Your task to perform on an android device: Open location settings Image 0: 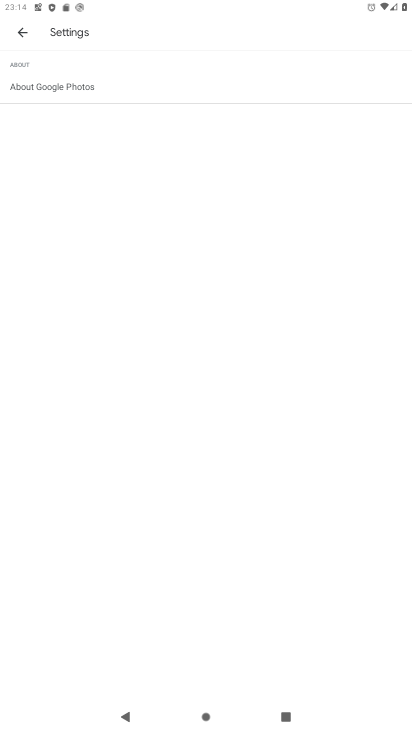
Step 0: press home button
Your task to perform on an android device: Open location settings Image 1: 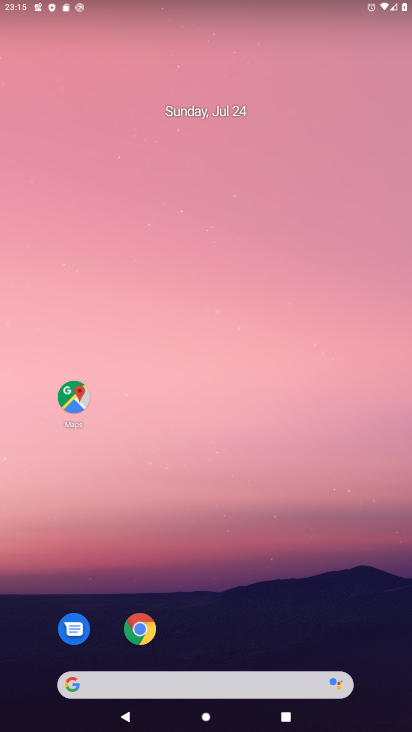
Step 1: drag from (200, 647) to (306, 87)
Your task to perform on an android device: Open location settings Image 2: 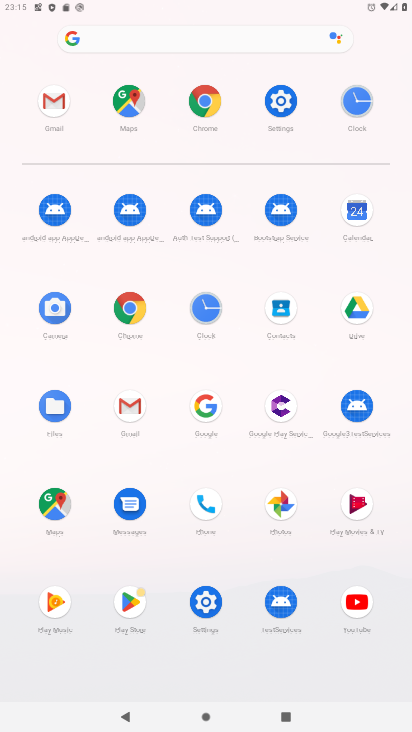
Step 2: click (201, 596)
Your task to perform on an android device: Open location settings Image 3: 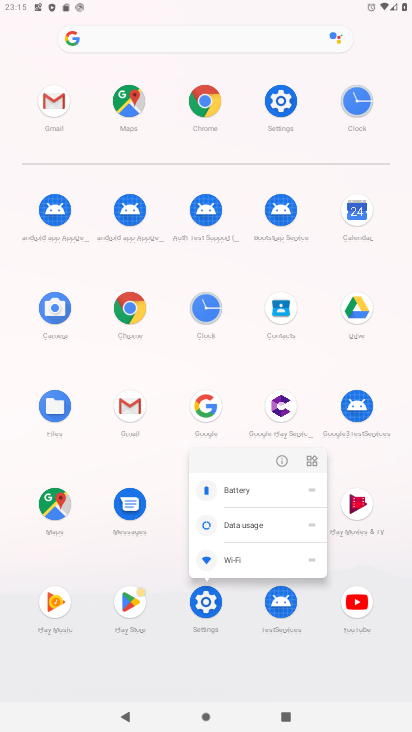
Step 3: click (284, 460)
Your task to perform on an android device: Open location settings Image 4: 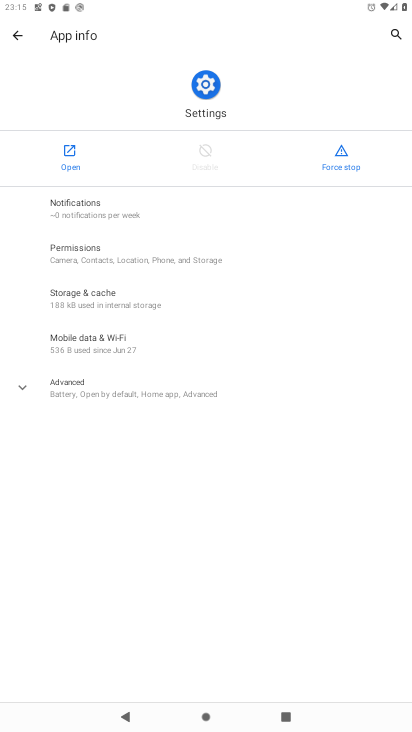
Step 4: click (79, 153)
Your task to perform on an android device: Open location settings Image 5: 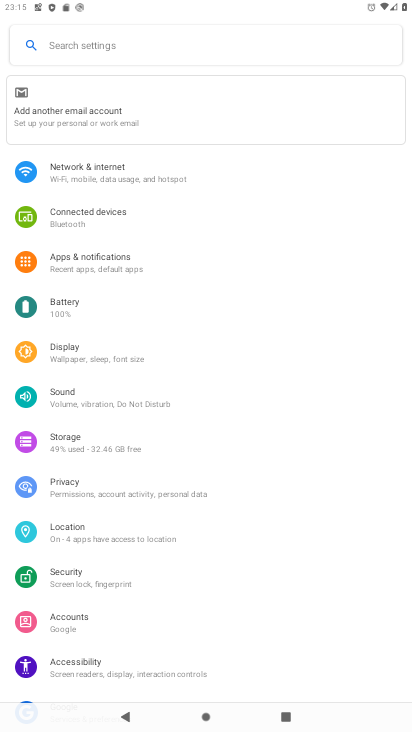
Step 5: click (88, 519)
Your task to perform on an android device: Open location settings Image 6: 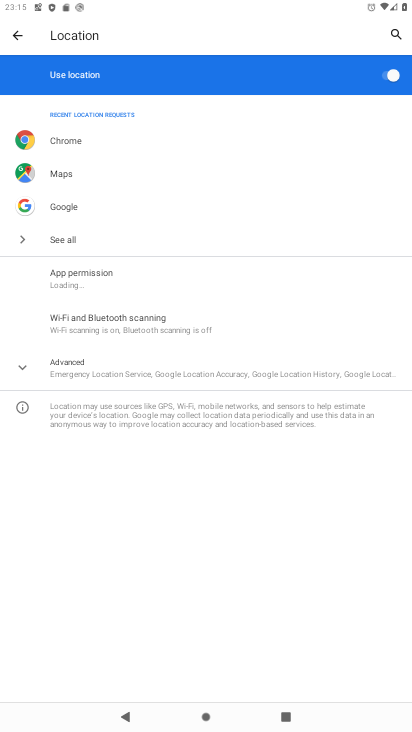
Step 6: drag from (219, 567) to (219, 188)
Your task to perform on an android device: Open location settings Image 7: 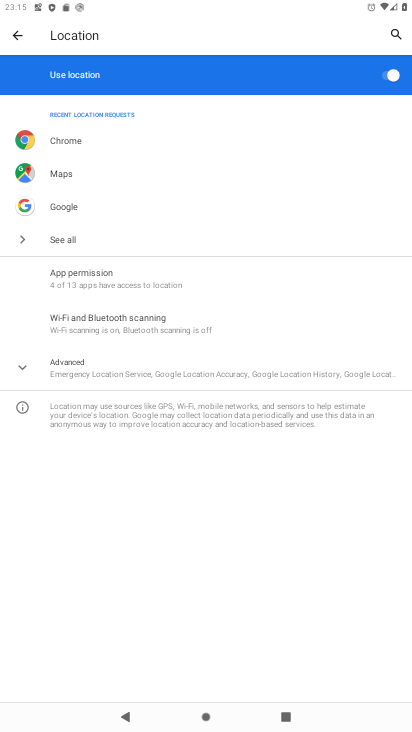
Step 7: click (69, 371)
Your task to perform on an android device: Open location settings Image 8: 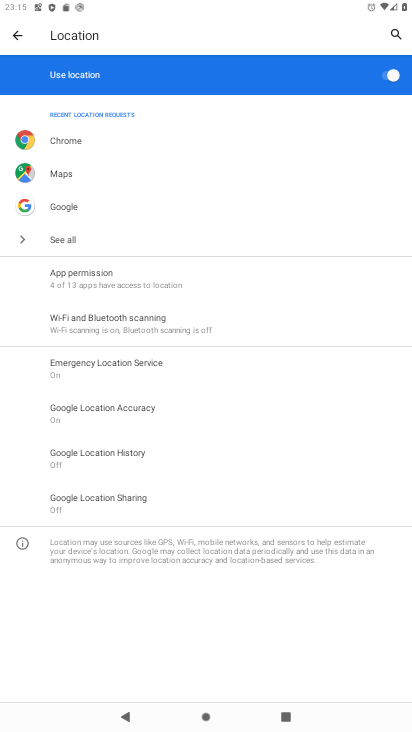
Step 8: task complete